Your task to perform on an android device: all mails in gmail Image 0: 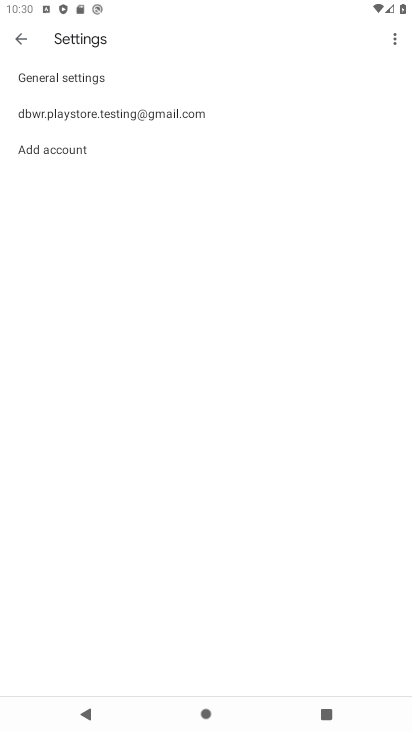
Step 0: task complete